Your task to perform on an android device: Find coffee shops on Maps Image 0: 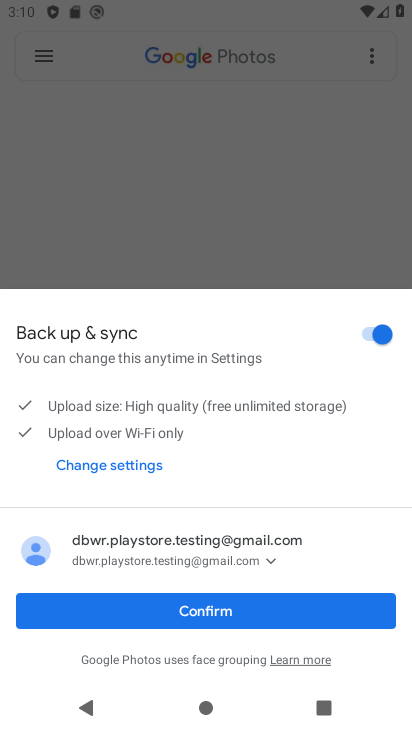
Step 0: press home button
Your task to perform on an android device: Find coffee shops on Maps Image 1: 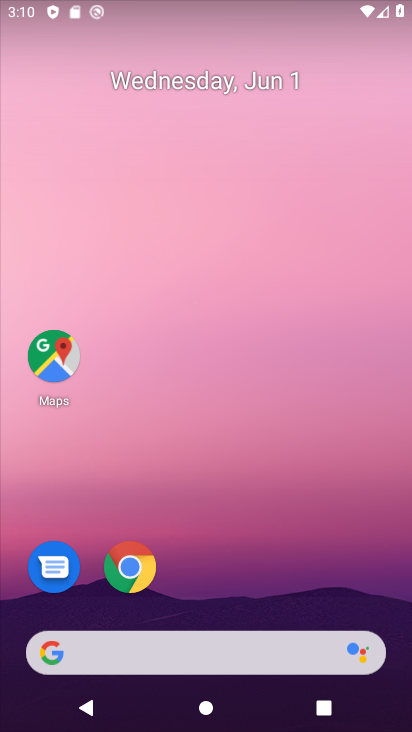
Step 1: drag from (178, 623) to (281, 140)
Your task to perform on an android device: Find coffee shops on Maps Image 2: 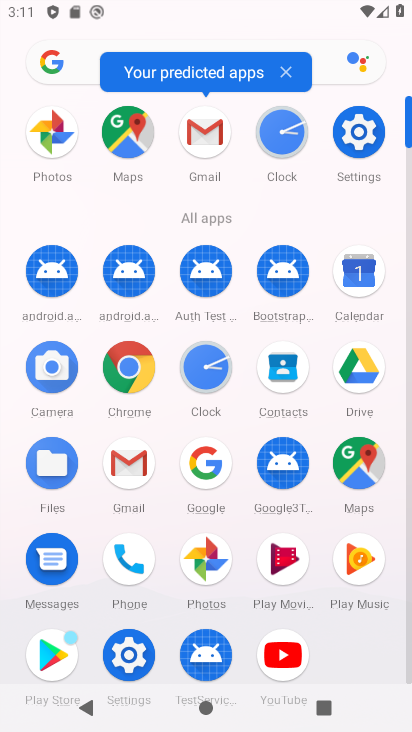
Step 2: click (371, 457)
Your task to perform on an android device: Find coffee shops on Maps Image 3: 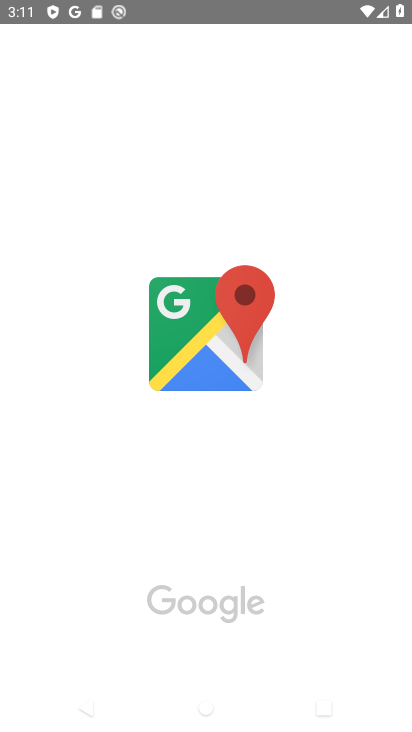
Step 3: click (371, 457)
Your task to perform on an android device: Find coffee shops on Maps Image 4: 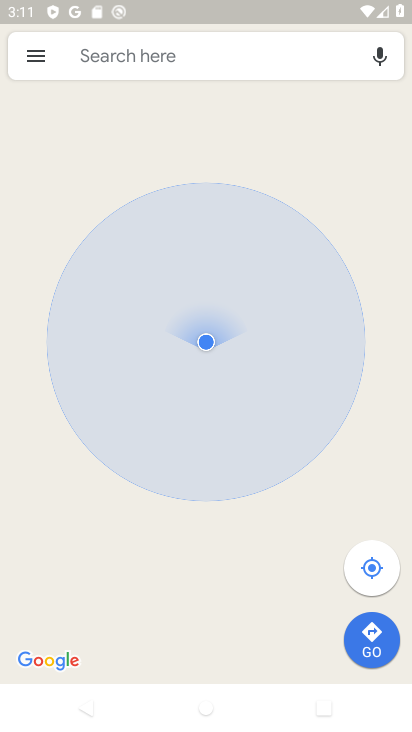
Step 4: click (146, 66)
Your task to perform on an android device: Find coffee shops on Maps Image 5: 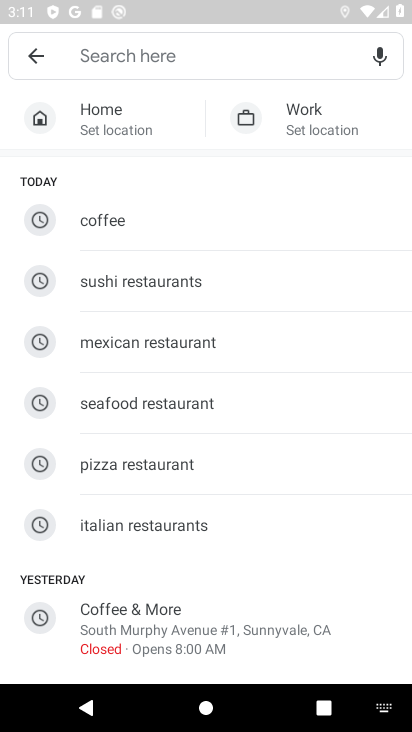
Step 5: type "Coffee shops"
Your task to perform on an android device: Find coffee shops on Maps Image 6: 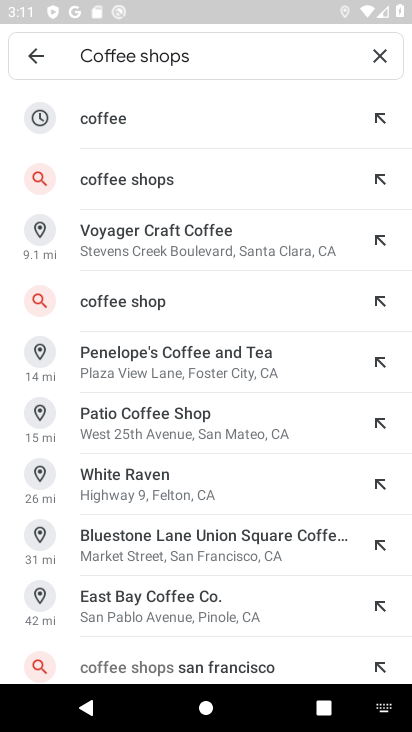
Step 6: click (164, 164)
Your task to perform on an android device: Find coffee shops on Maps Image 7: 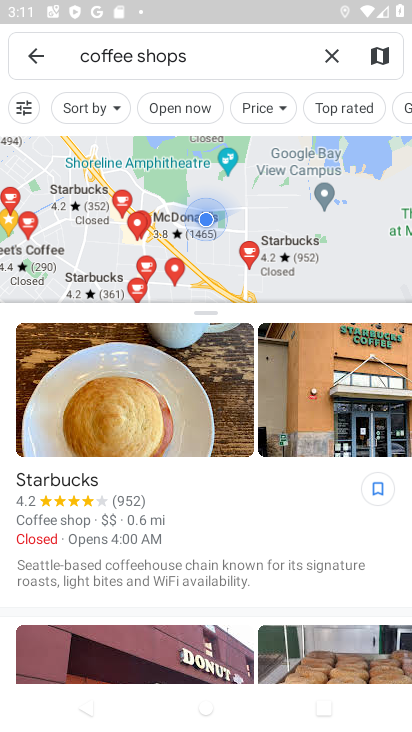
Step 7: task complete